Your task to perform on an android device: Turn on the flashlight Image 0: 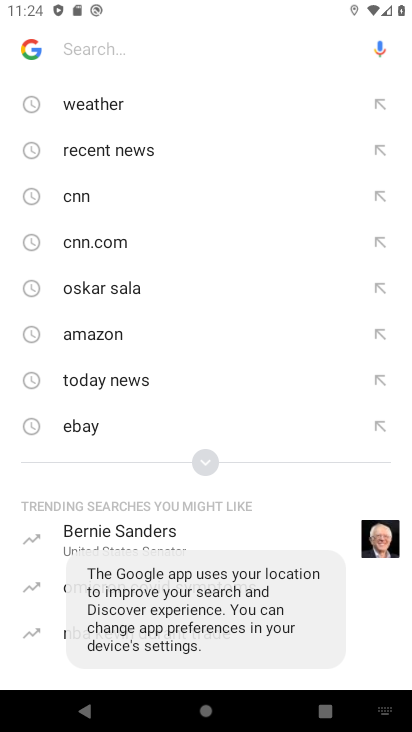
Step 0: press home button
Your task to perform on an android device: Turn on the flashlight Image 1: 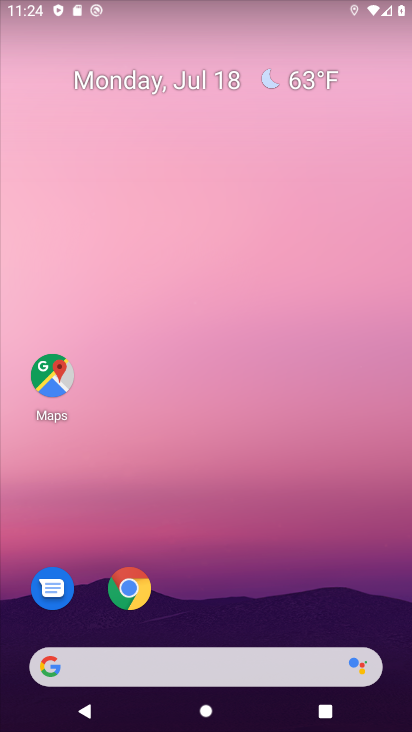
Step 1: drag from (197, 557) to (262, 0)
Your task to perform on an android device: Turn on the flashlight Image 2: 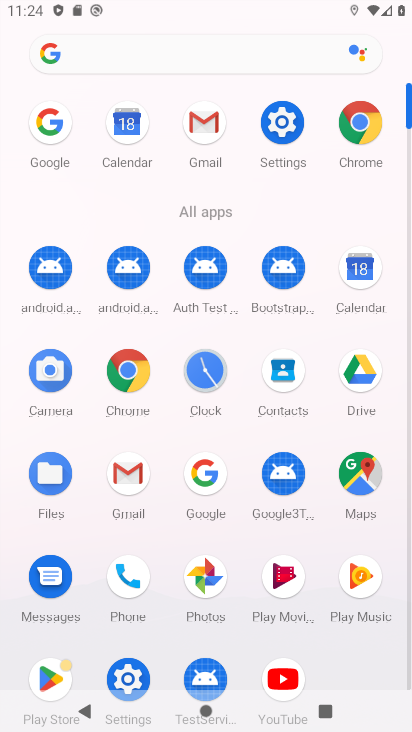
Step 2: click (292, 128)
Your task to perform on an android device: Turn on the flashlight Image 3: 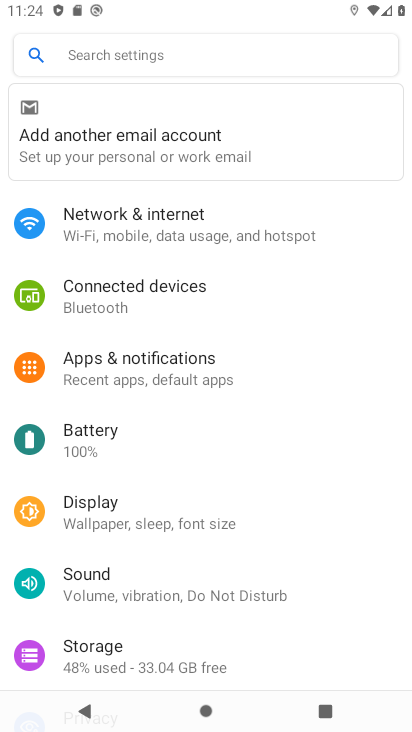
Step 3: task complete